Your task to perform on an android device: search for starred emails in the gmail app Image 0: 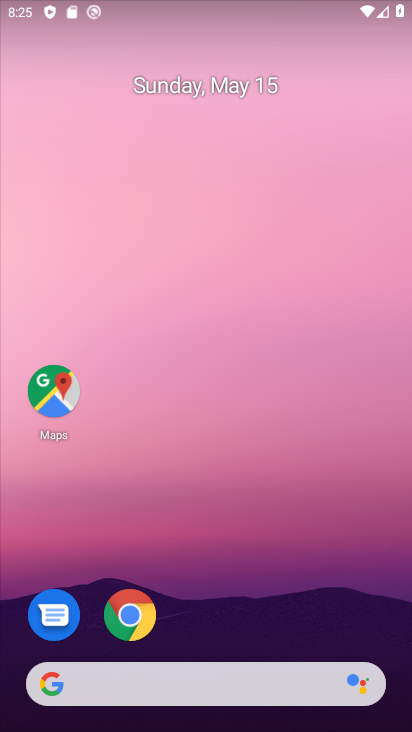
Step 0: click (254, 55)
Your task to perform on an android device: search for starred emails in the gmail app Image 1: 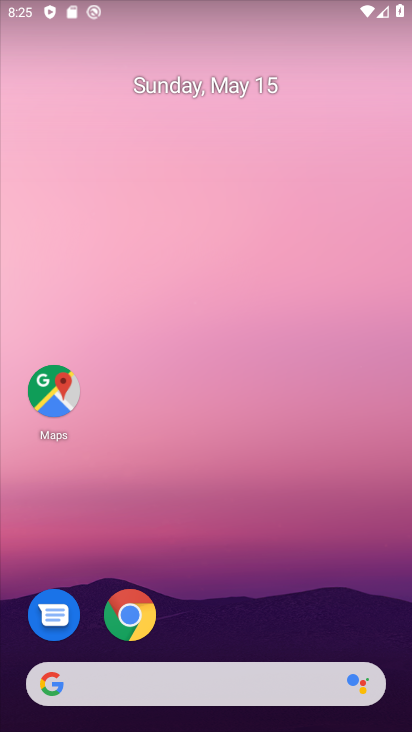
Step 1: drag from (292, 628) to (204, 2)
Your task to perform on an android device: search for starred emails in the gmail app Image 2: 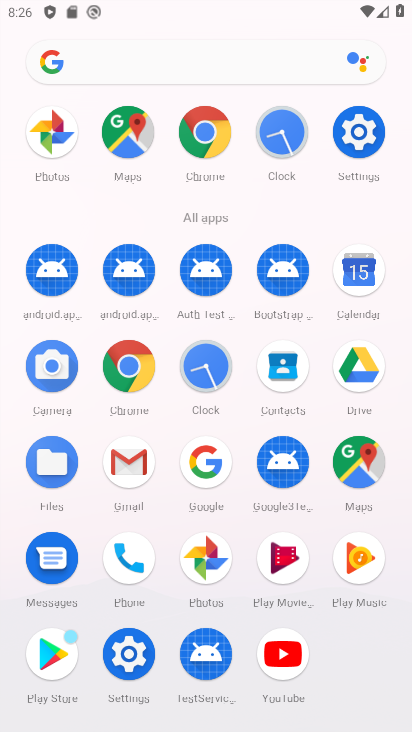
Step 2: click (125, 456)
Your task to perform on an android device: search for starred emails in the gmail app Image 3: 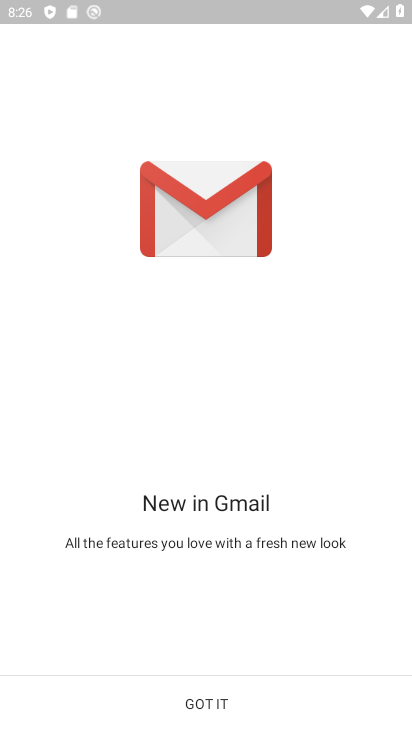
Step 3: click (192, 707)
Your task to perform on an android device: search for starred emails in the gmail app Image 4: 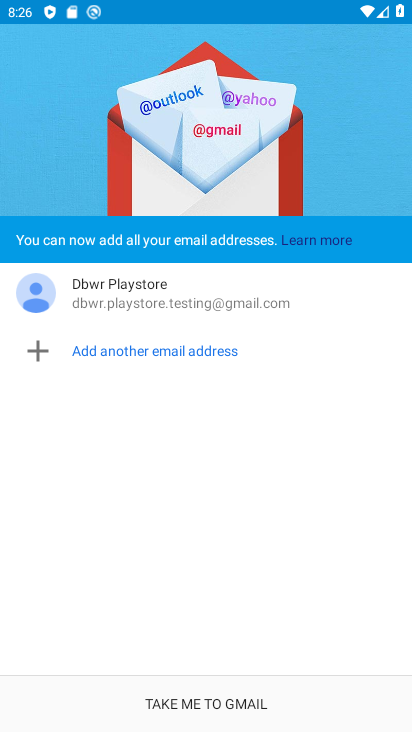
Step 4: click (192, 706)
Your task to perform on an android device: search for starred emails in the gmail app Image 5: 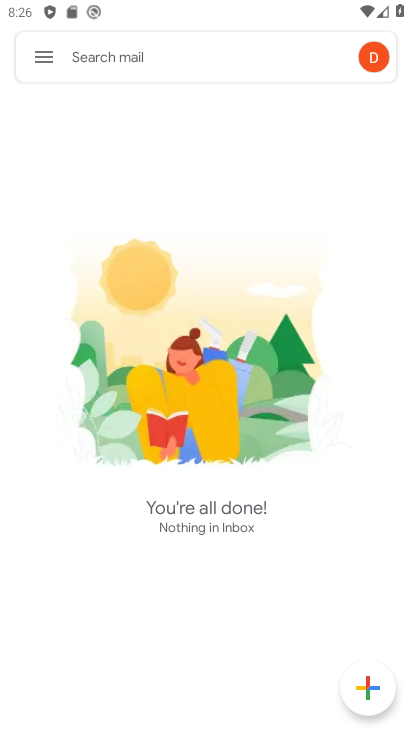
Step 5: click (48, 56)
Your task to perform on an android device: search for starred emails in the gmail app Image 6: 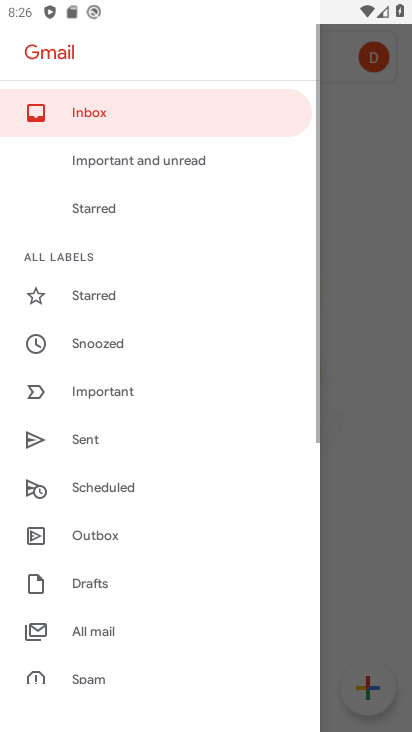
Step 6: drag from (213, 572) to (241, 154)
Your task to perform on an android device: search for starred emails in the gmail app Image 7: 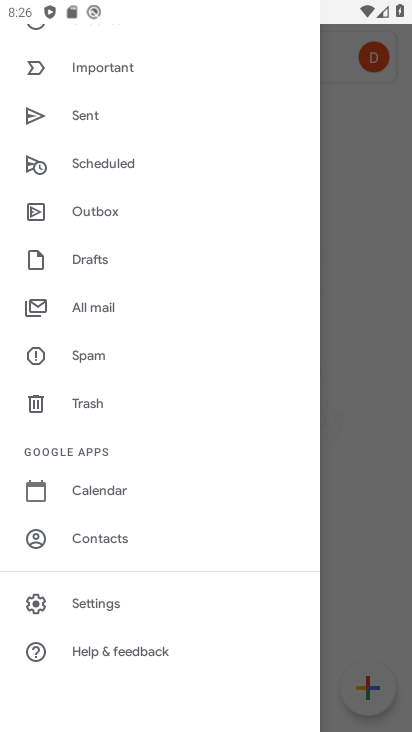
Step 7: drag from (149, 115) to (176, 436)
Your task to perform on an android device: search for starred emails in the gmail app Image 8: 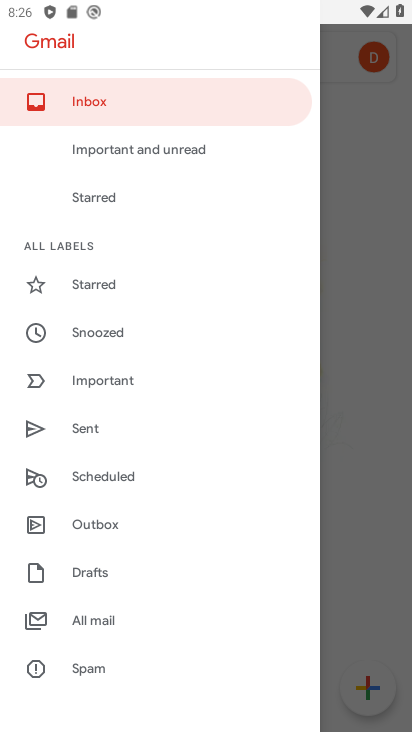
Step 8: click (97, 281)
Your task to perform on an android device: search for starred emails in the gmail app Image 9: 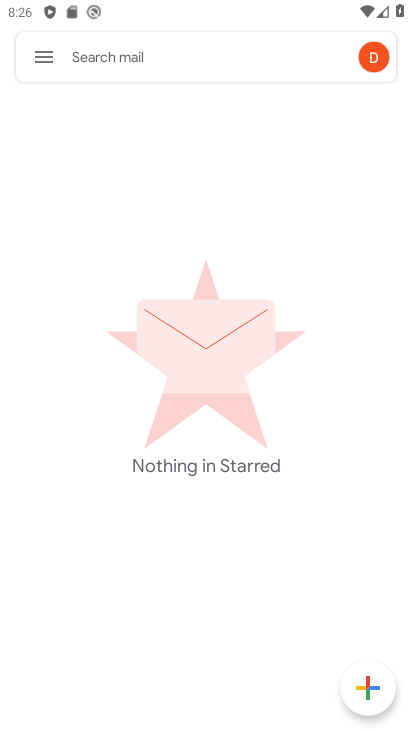
Step 9: task complete